Your task to perform on an android device: Open calendar and show me the fourth week of next month Image 0: 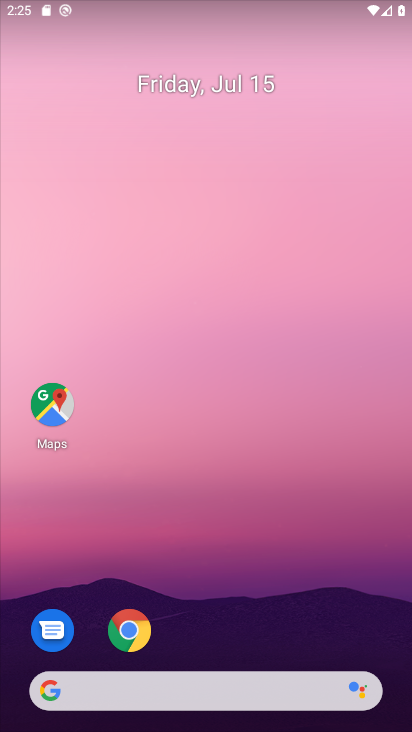
Step 0: drag from (246, 647) to (320, 0)
Your task to perform on an android device: Open calendar and show me the fourth week of next month Image 1: 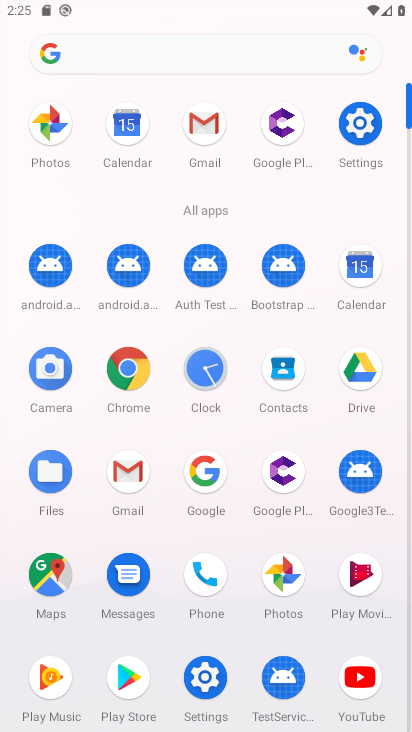
Step 1: click (362, 281)
Your task to perform on an android device: Open calendar and show me the fourth week of next month Image 2: 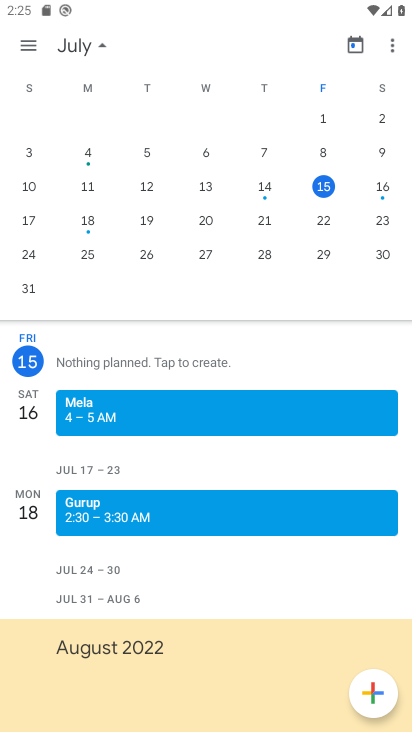
Step 2: drag from (393, 240) to (31, 395)
Your task to perform on an android device: Open calendar and show me the fourth week of next month Image 3: 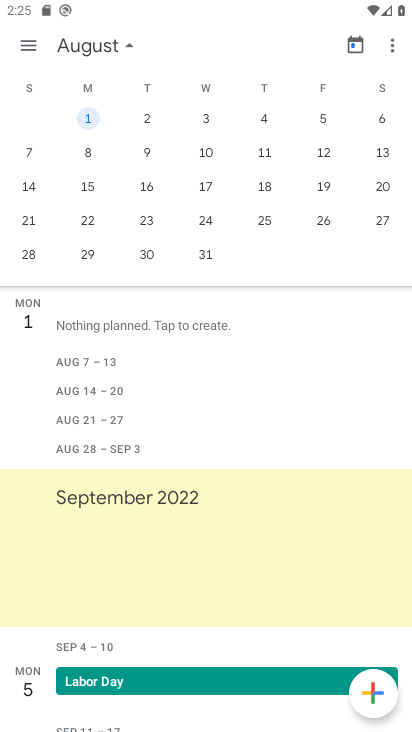
Step 3: click (27, 256)
Your task to perform on an android device: Open calendar and show me the fourth week of next month Image 4: 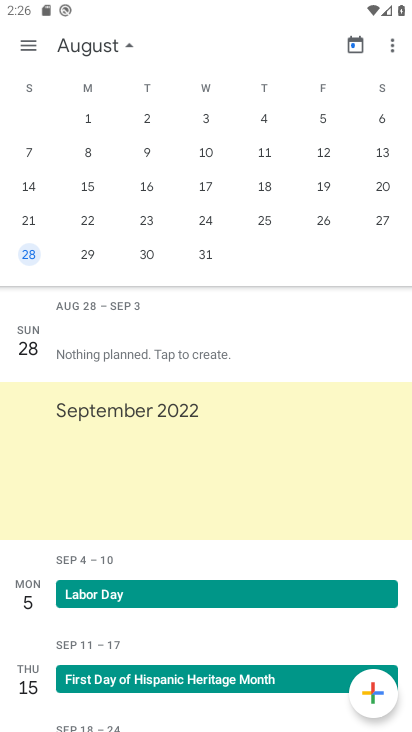
Step 4: task complete